Your task to perform on an android device: Open sound settings Image 0: 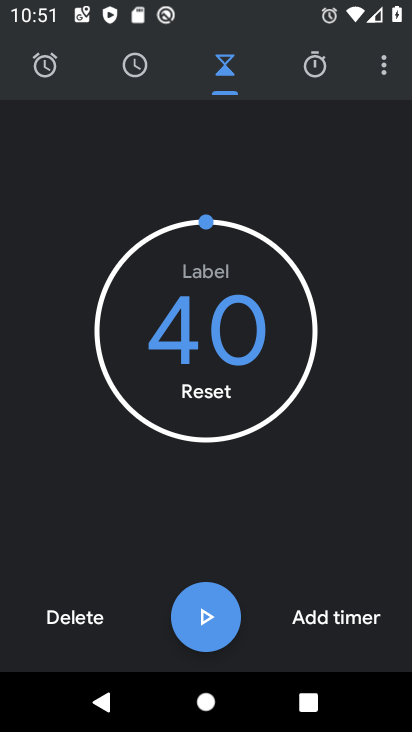
Step 0: press home button
Your task to perform on an android device: Open sound settings Image 1: 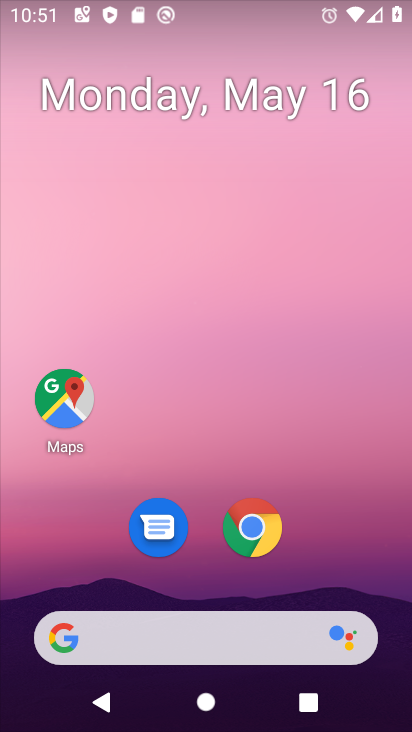
Step 1: drag from (363, 599) to (351, 1)
Your task to perform on an android device: Open sound settings Image 2: 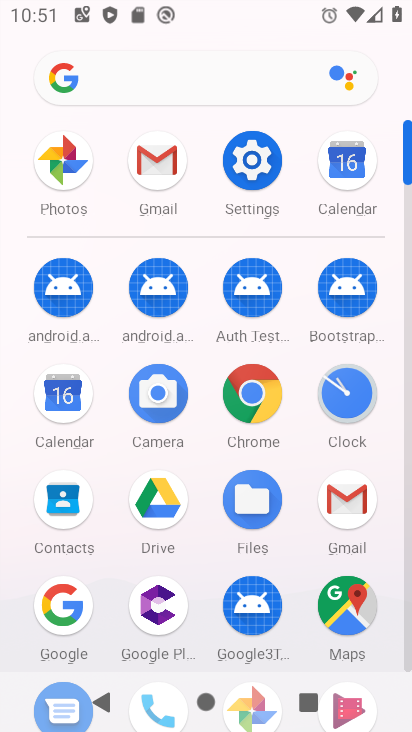
Step 2: click (255, 173)
Your task to perform on an android device: Open sound settings Image 3: 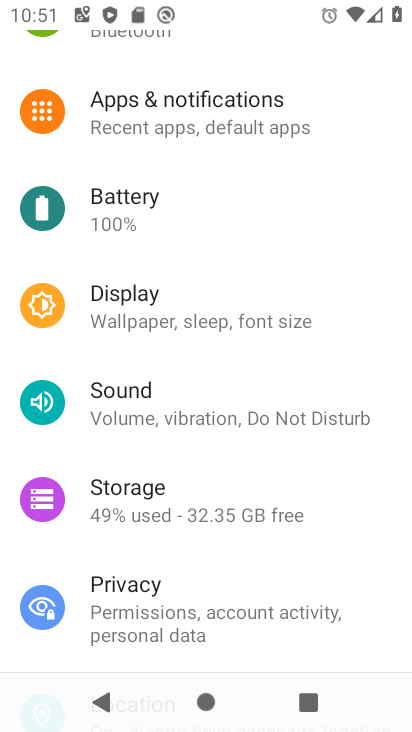
Step 3: click (127, 389)
Your task to perform on an android device: Open sound settings Image 4: 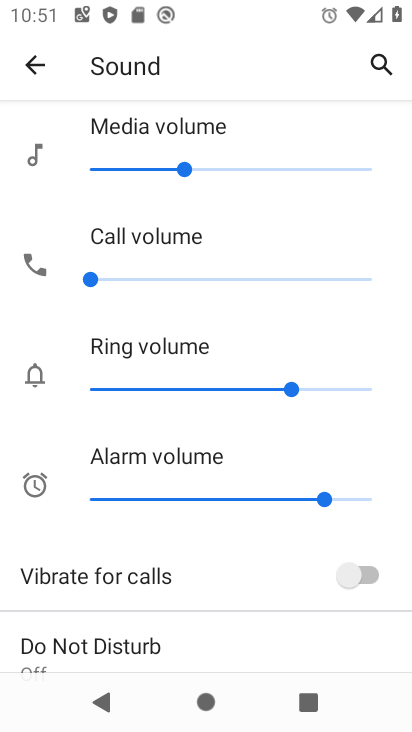
Step 4: task complete